Your task to perform on an android device: open app "Instagram" (install if not already installed) Image 0: 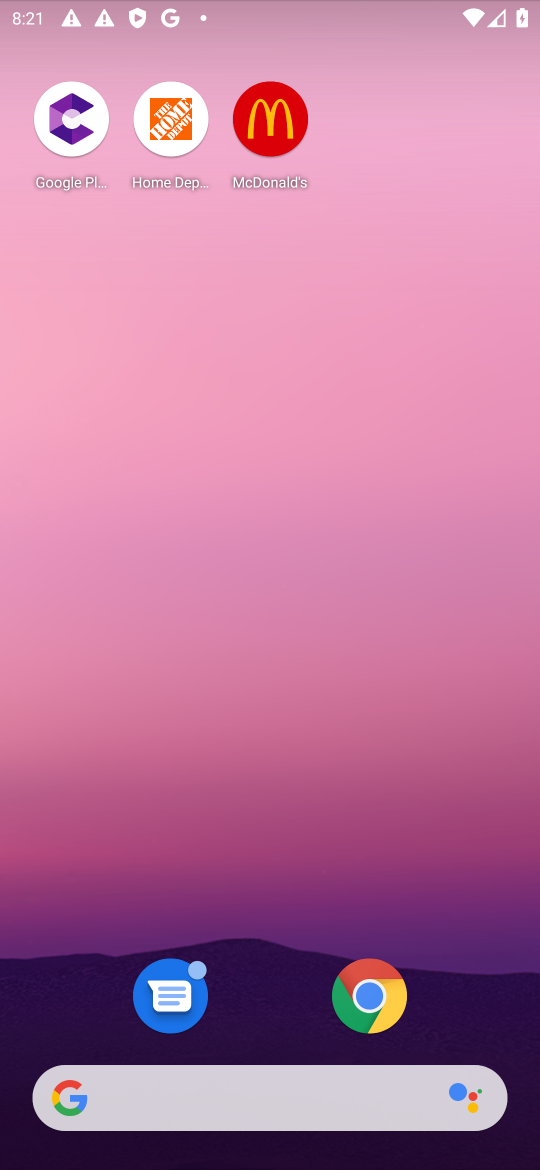
Step 0: press home button
Your task to perform on an android device: open app "Instagram" (install if not already installed) Image 1: 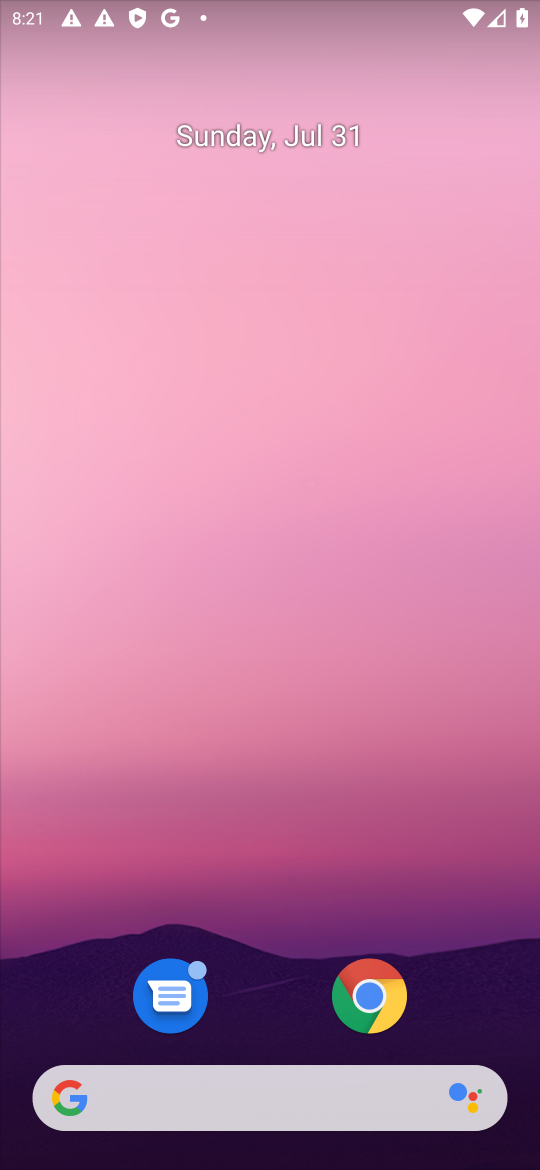
Step 1: drag from (468, 943) to (486, 155)
Your task to perform on an android device: open app "Instagram" (install if not already installed) Image 2: 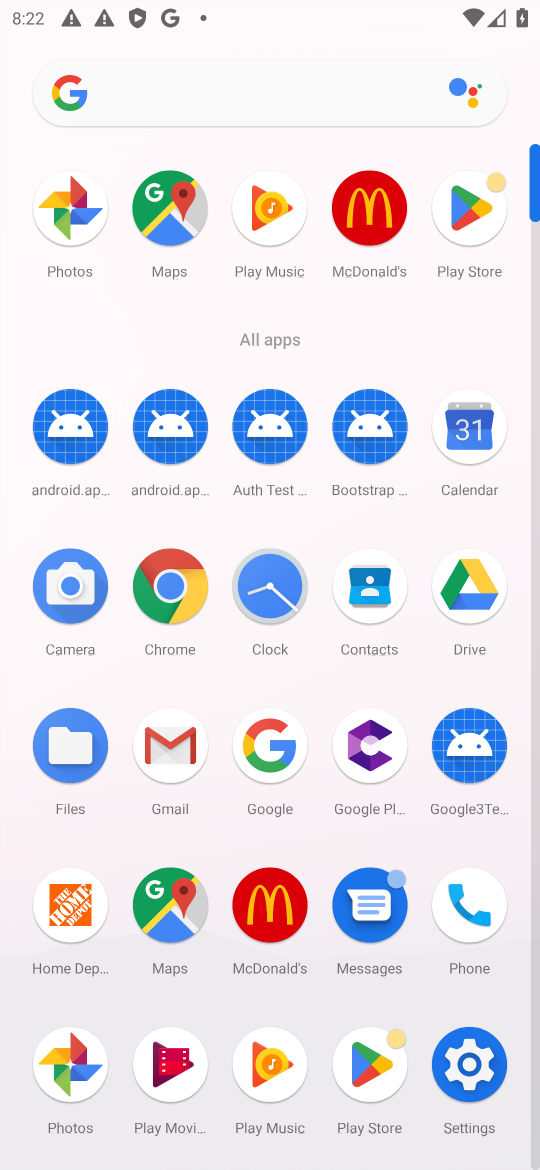
Step 2: click (372, 1056)
Your task to perform on an android device: open app "Instagram" (install if not already installed) Image 3: 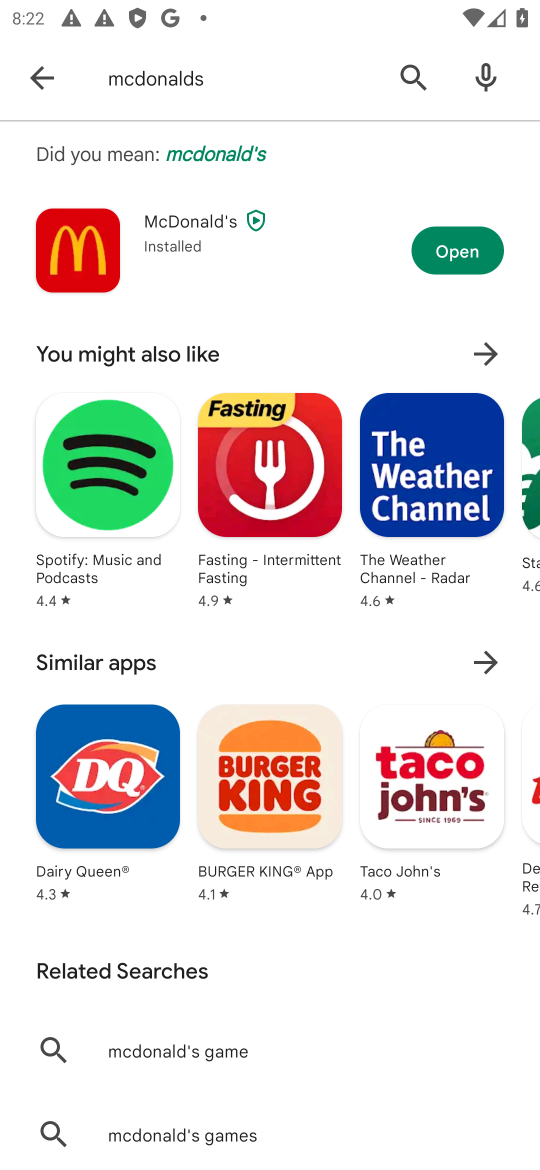
Step 3: press back button
Your task to perform on an android device: open app "Instagram" (install if not already installed) Image 4: 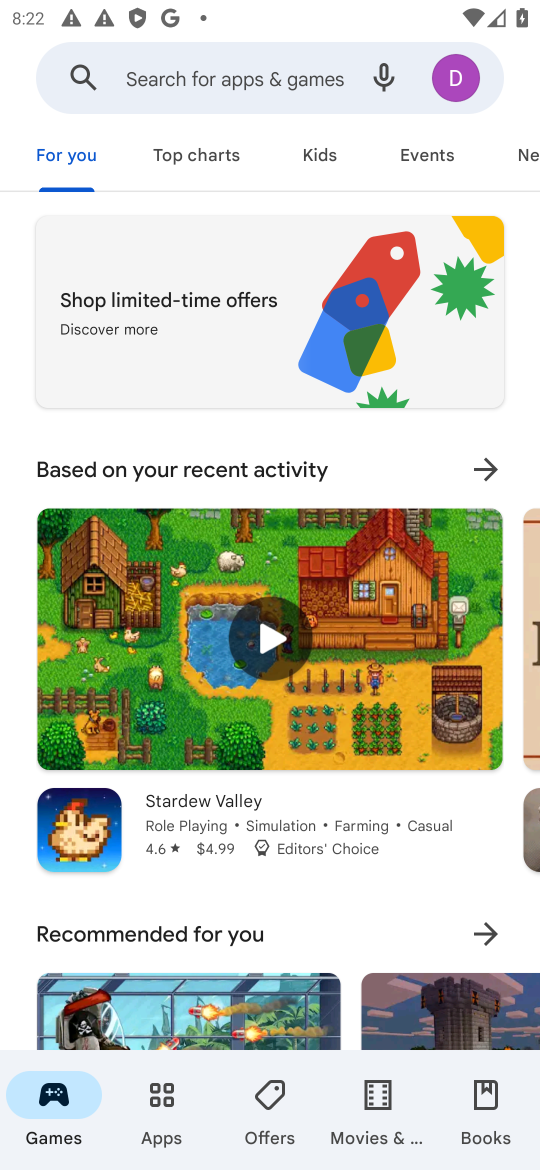
Step 4: click (255, 59)
Your task to perform on an android device: open app "Instagram" (install if not already installed) Image 5: 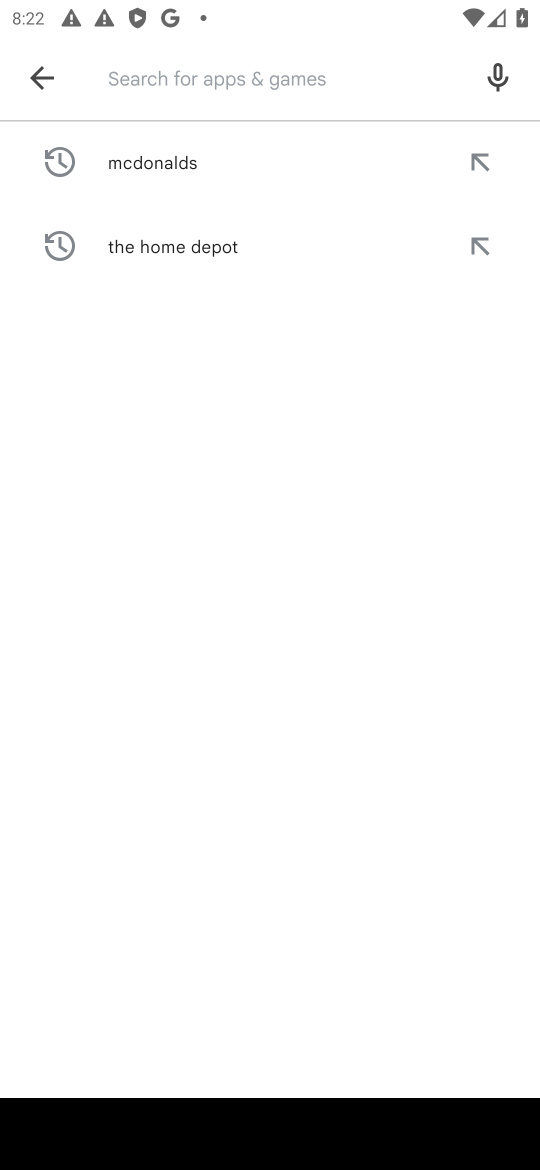
Step 5: type "instagram"
Your task to perform on an android device: open app "Instagram" (install if not already installed) Image 6: 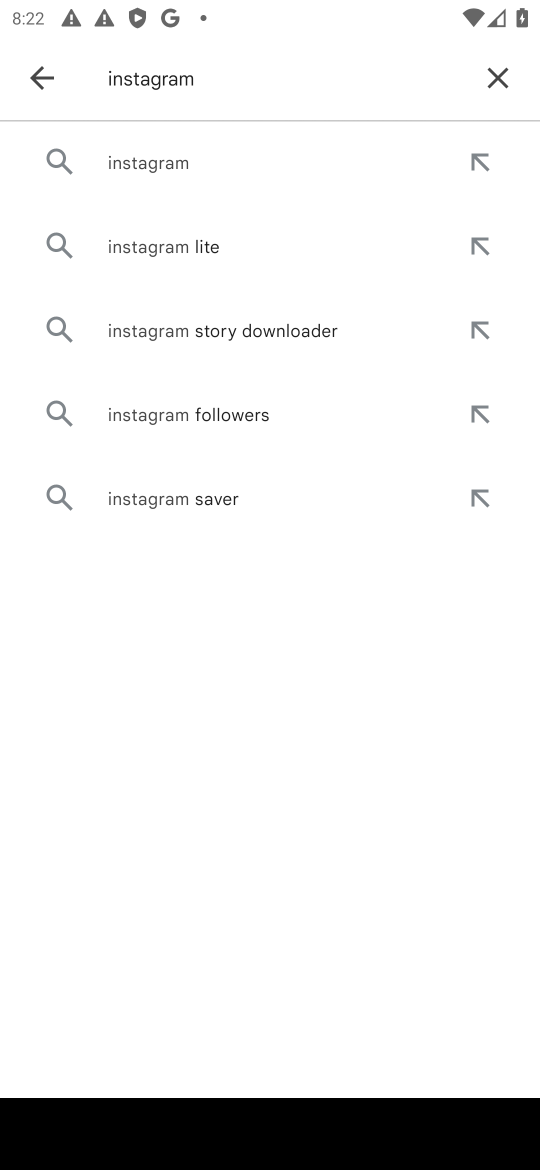
Step 6: click (268, 165)
Your task to perform on an android device: open app "Instagram" (install if not already installed) Image 7: 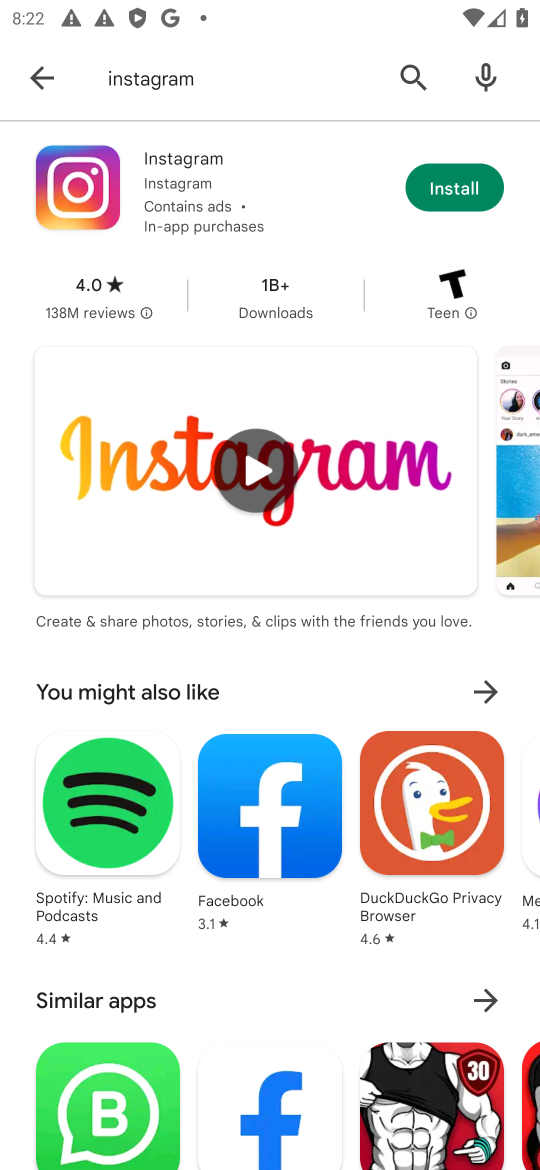
Step 7: click (449, 182)
Your task to perform on an android device: open app "Instagram" (install if not already installed) Image 8: 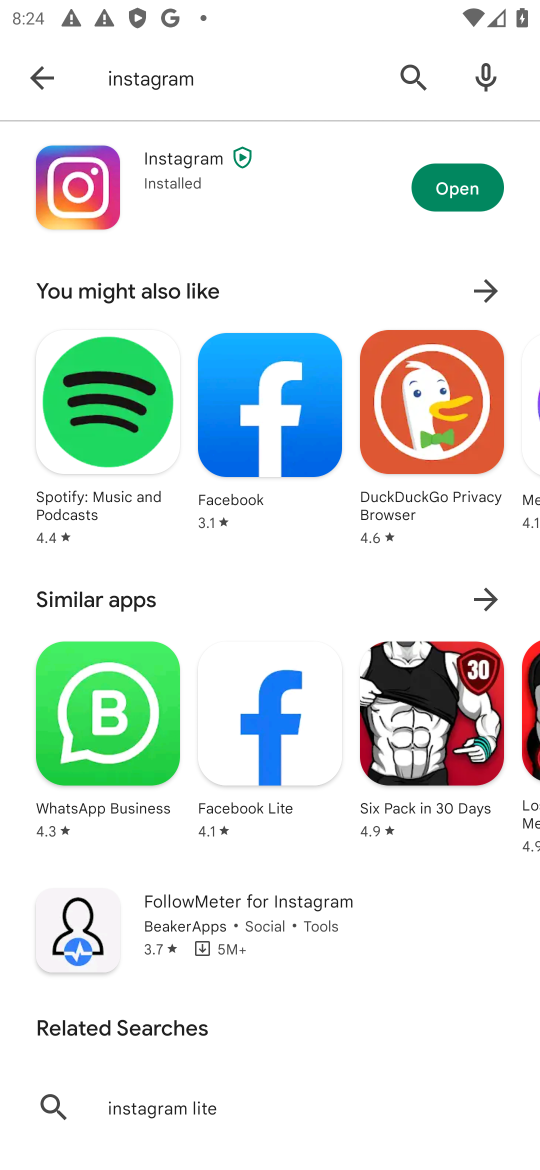
Step 8: task complete